Your task to perform on an android device: Search for a nice rug on Crate & Barrel Image 0: 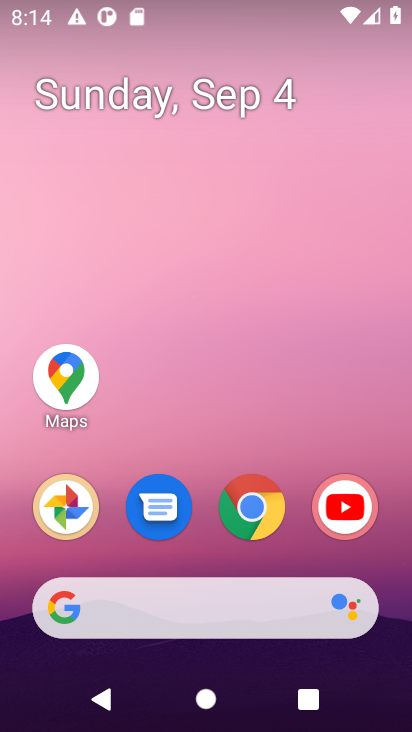
Step 0: click (252, 512)
Your task to perform on an android device: Search for a nice rug on Crate & Barrel Image 1: 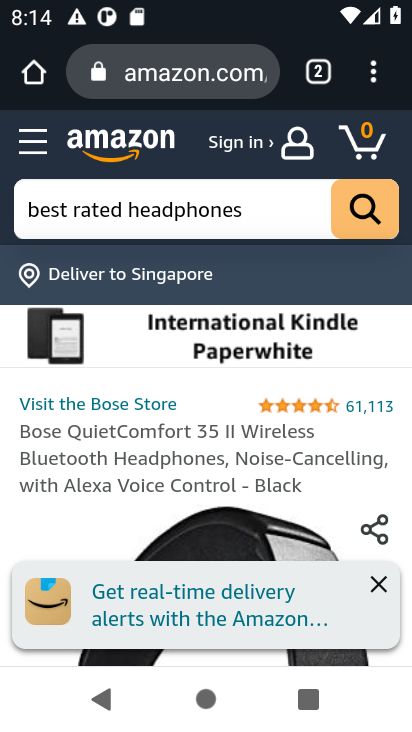
Step 1: click (165, 46)
Your task to perform on an android device: Search for a nice rug on Crate & Barrel Image 2: 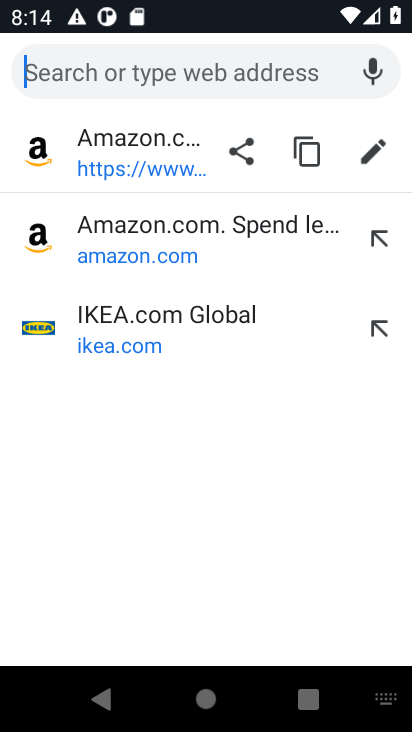
Step 2: type "Crate & Barrel"
Your task to perform on an android device: Search for a nice rug on Crate & Barrel Image 3: 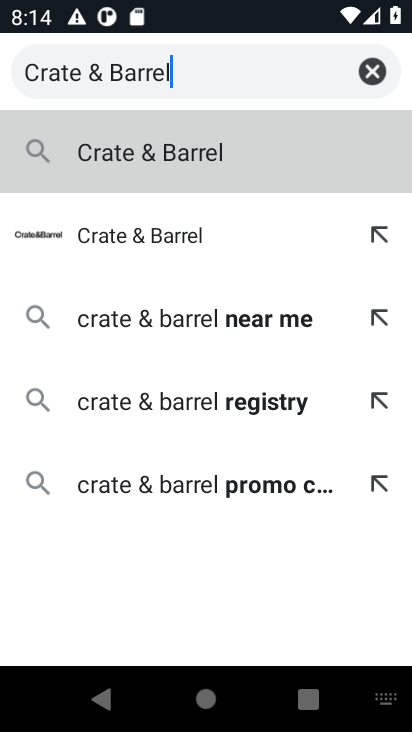
Step 3: click (131, 226)
Your task to perform on an android device: Search for a nice rug on Crate & Barrel Image 4: 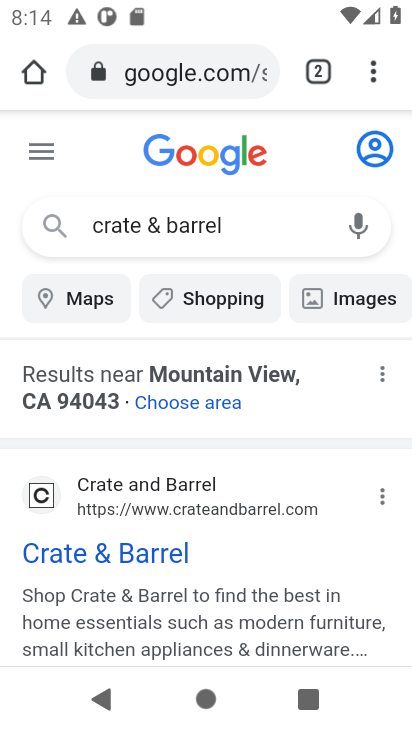
Step 4: click (126, 554)
Your task to perform on an android device: Search for a nice rug on Crate & Barrel Image 5: 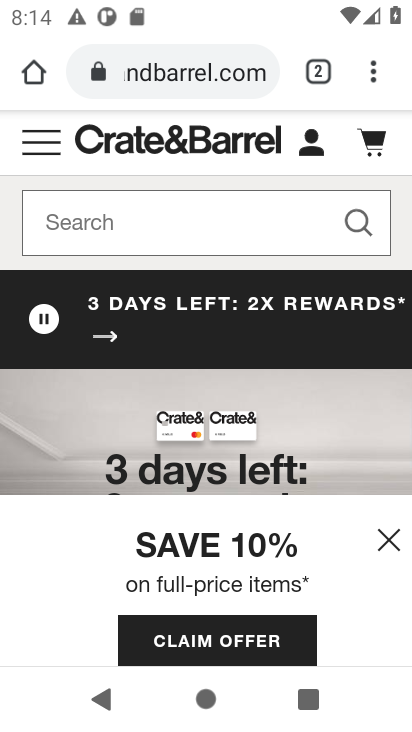
Step 5: click (387, 537)
Your task to perform on an android device: Search for a nice rug on Crate & Barrel Image 6: 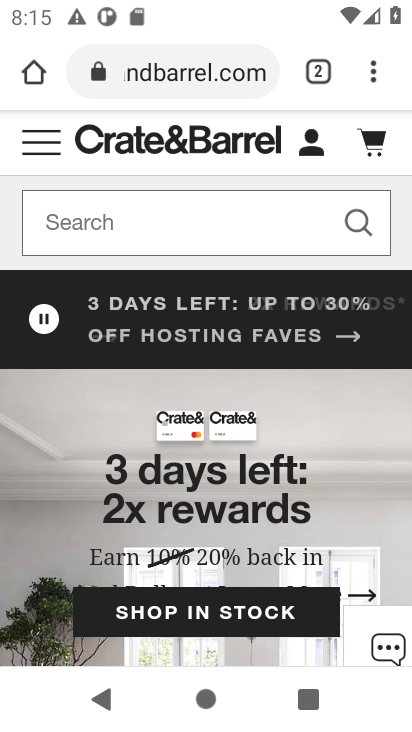
Step 6: click (83, 222)
Your task to perform on an android device: Search for a nice rug on Crate & Barrel Image 7: 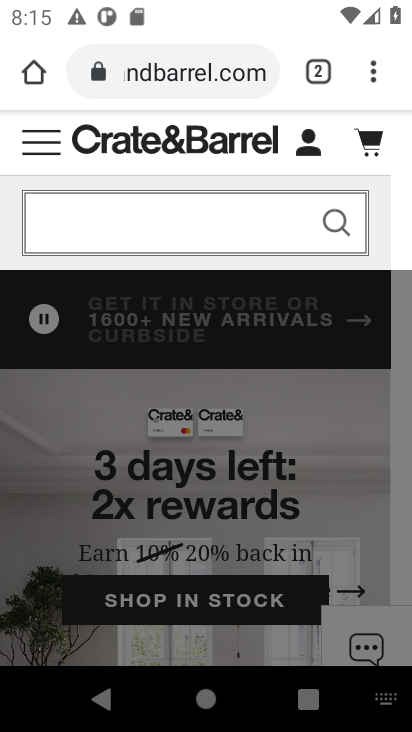
Step 7: type "nice rug"
Your task to perform on an android device: Search for a nice rug on Crate & Barrel Image 8: 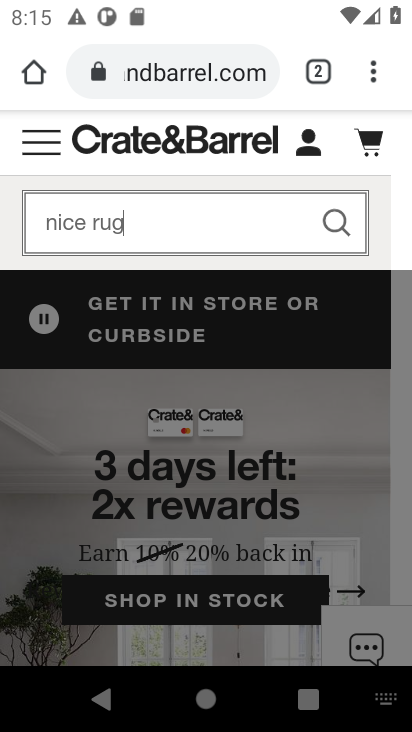
Step 8: click (338, 220)
Your task to perform on an android device: Search for a nice rug on Crate & Barrel Image 9: 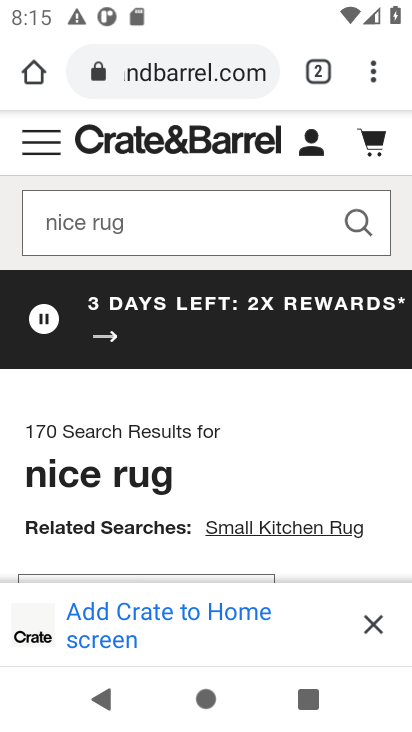
Step 9: drag from (212, 389) to (209, 196)
Your task to perform on an android device: Search for a nice rug on Crate & Barrel Image 10: 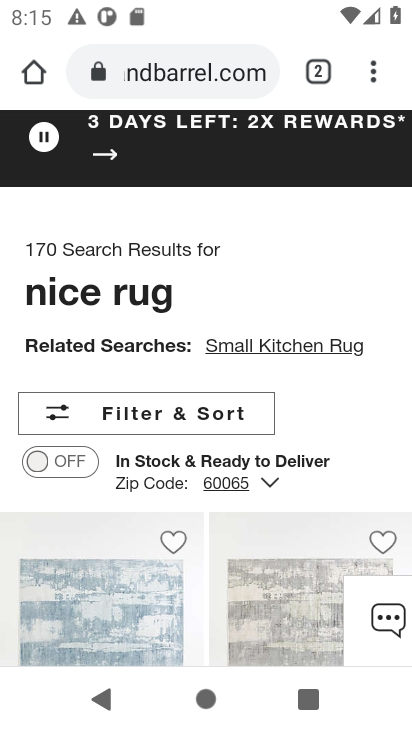
Step 10: drag from (205, 509) to (206, 217)
Your task to perform on an android device: Search for a nice rug on Crate & Barrel Image 11: 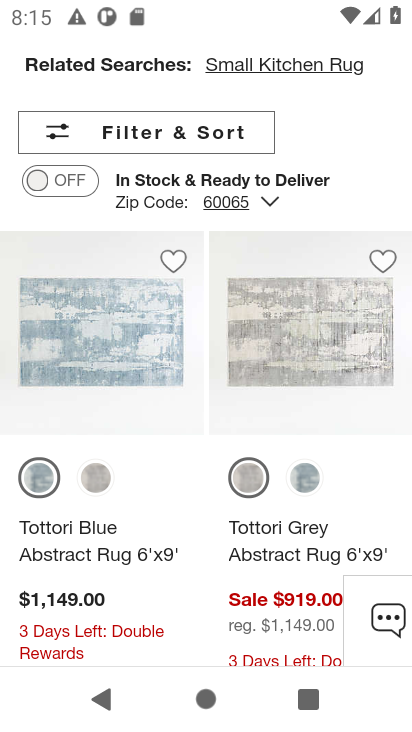
Step 11: drag from (203, 597) to (212, 332)
Your task to perform on an android device: Search for a nice rug on Crate & Barrel Image 12: 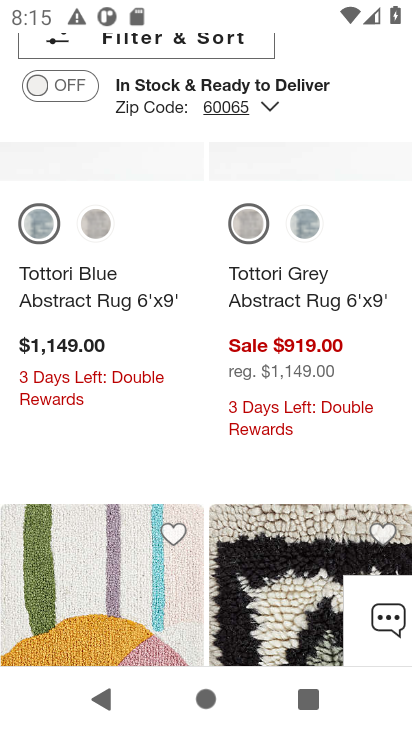
Step 12: drag from (202, 452) to (202, 258)
Your task to perform on an android device: Search for a nice rug on Crate & Barrel Image 13: 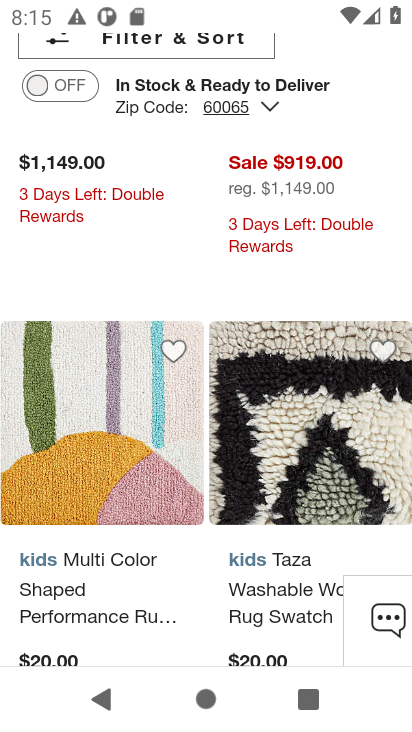
Step 13: drag from (210, 485) to (204, 320)
Your task to perform on an android device: Search for a nice rug on Crate & Barrel Image 14: 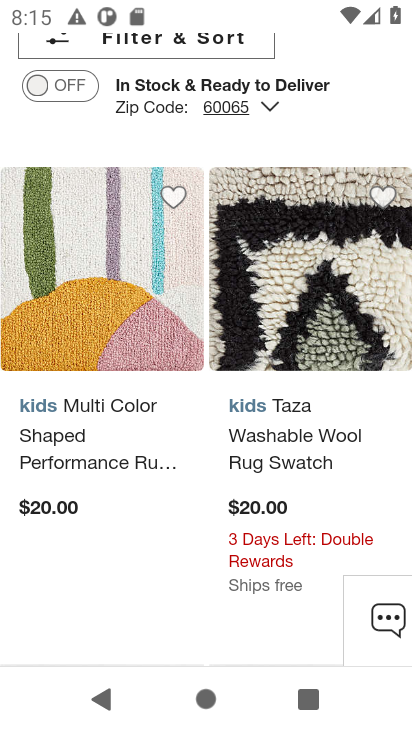
Step 14: drag from (212, 527) to (208, 211)
Your task to perform on an android device: Search for a nice rug on Crate & Barrel Image 15: 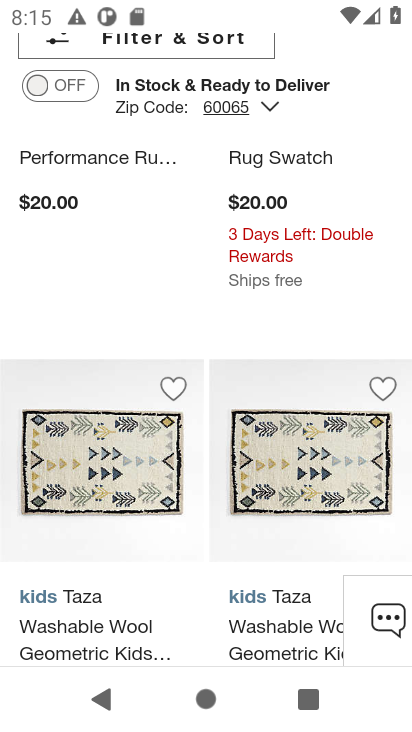
Step 15: click (202, 248)
Your task to perform on an android device: Search for a nice rug on Crate & Barrel Image 16: 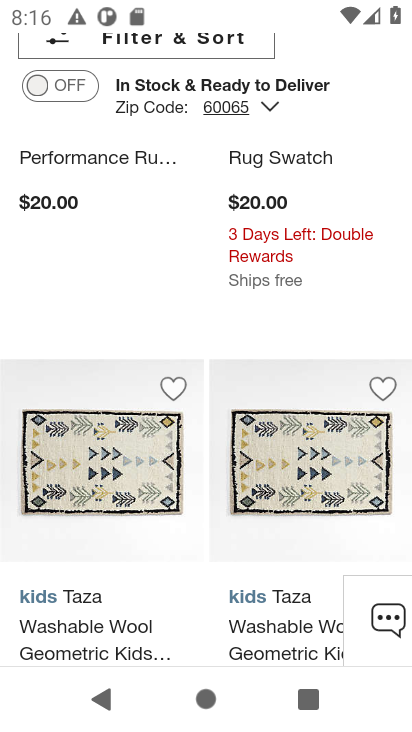
Step 16: task complete